Your task to perform on an android device: install app "Adobe Express: Graphic Design" Image 0: 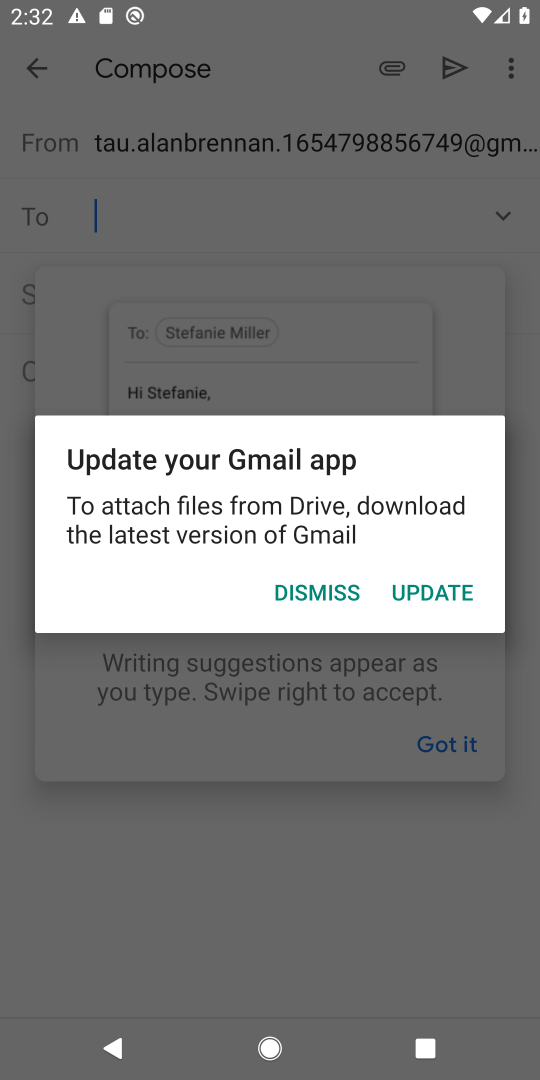
Step 0: press home button
Your task to perform on an android device: install app "Adobe Express: Graphic Design" Image 1: 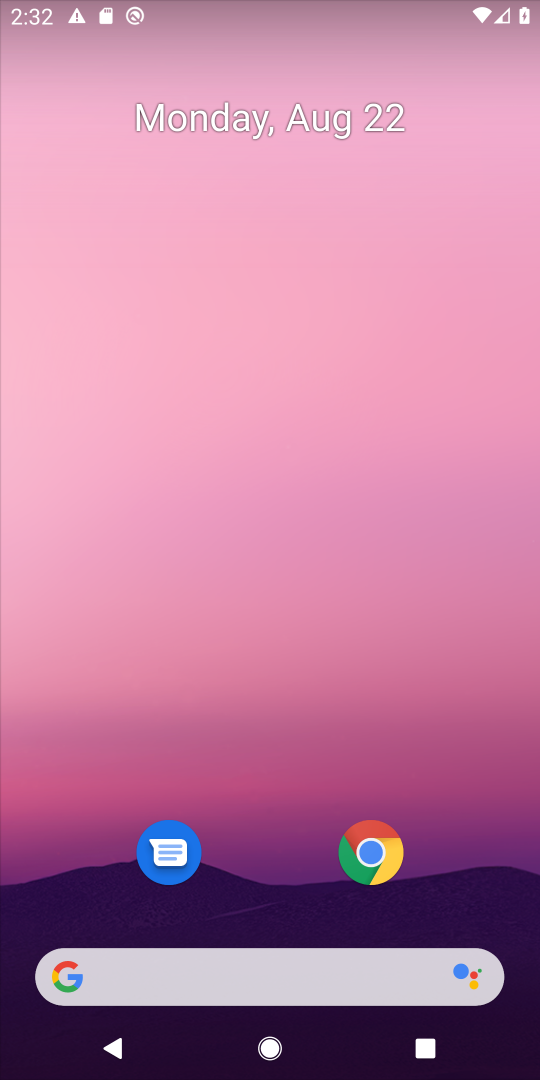
Step 1: drag from (255, 925) to (285, 150)
Your task to perform on an android device: install app "Adobe Express: Graphic Design" Image 2: 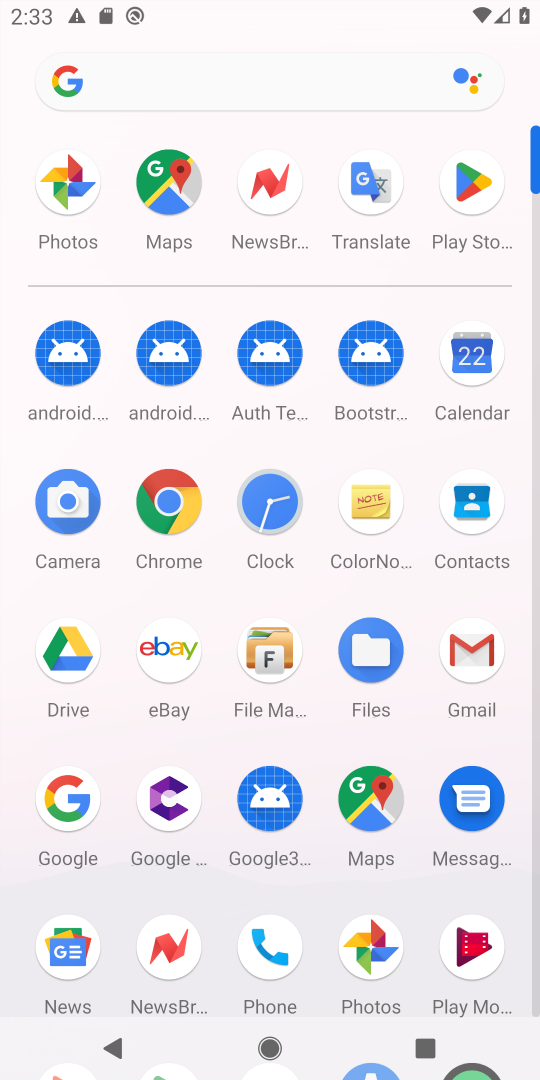
Step 2: click (476, 176)
Your task to perform on an android device: install app "Adobe Express: Graphic Design" Image 3: 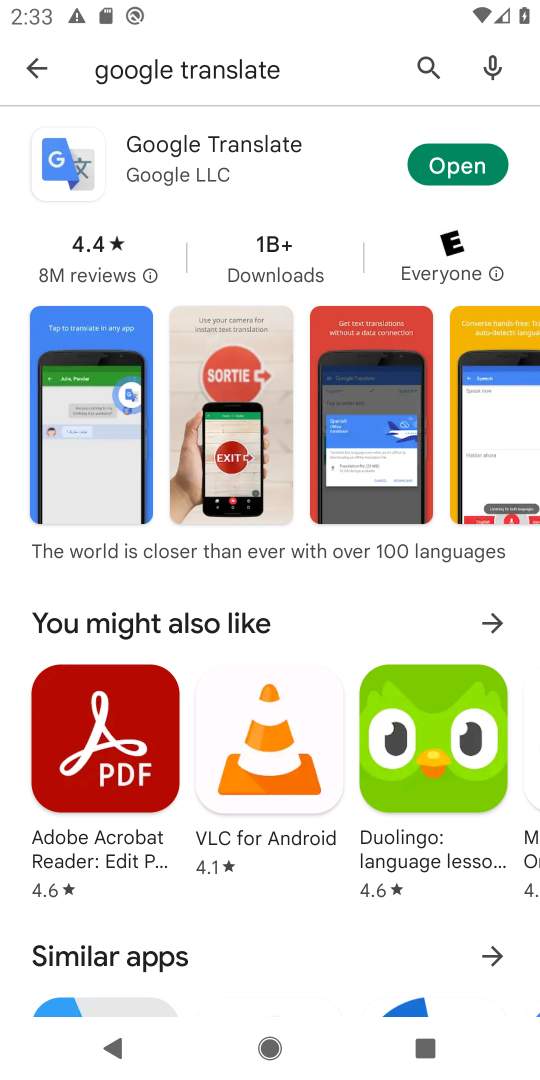
Step 3: click (418, 60)
Your task to perform on an android device: install app "Adobe Express: Graphic Design" Image 4: 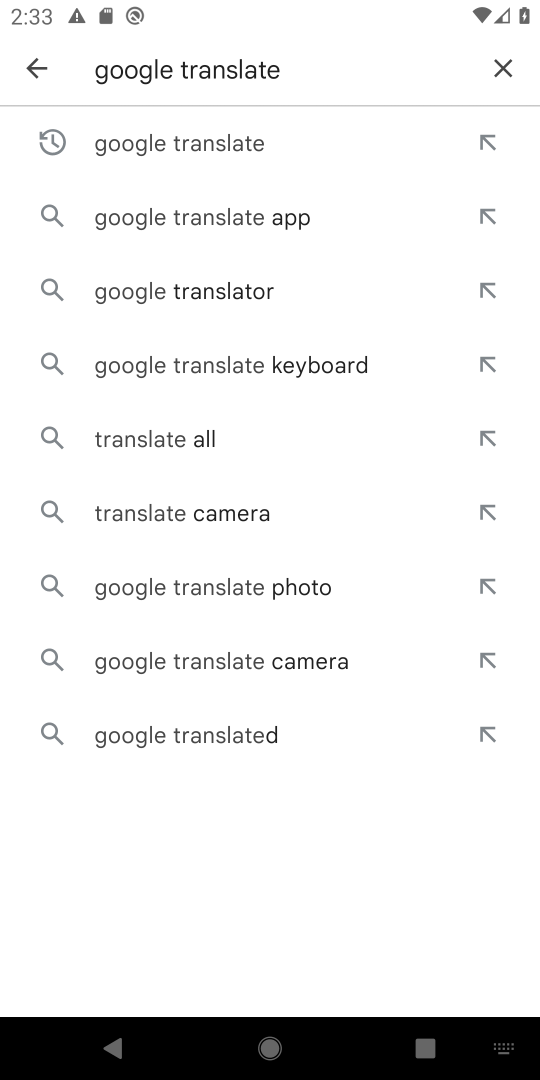
Step 4: click (494, 65)
Your task to perform on an android device: install app "Adobe Express: Graphic Design" Image 5: 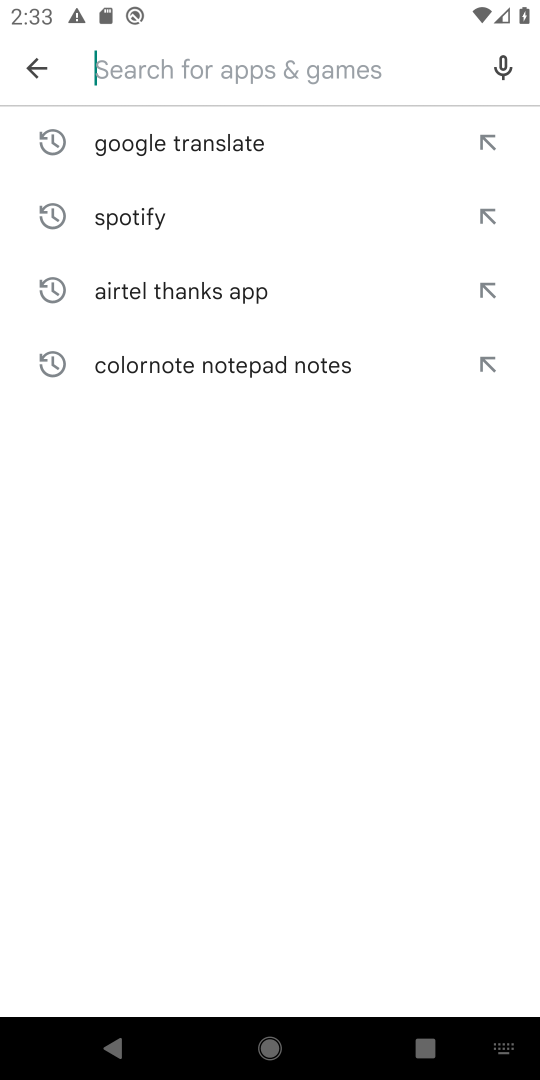
Step 5: type "Adobe Express: Graphic Design"
Your task to perform on an android device: install app "Adobe Express: Graphic Design" Image 6: 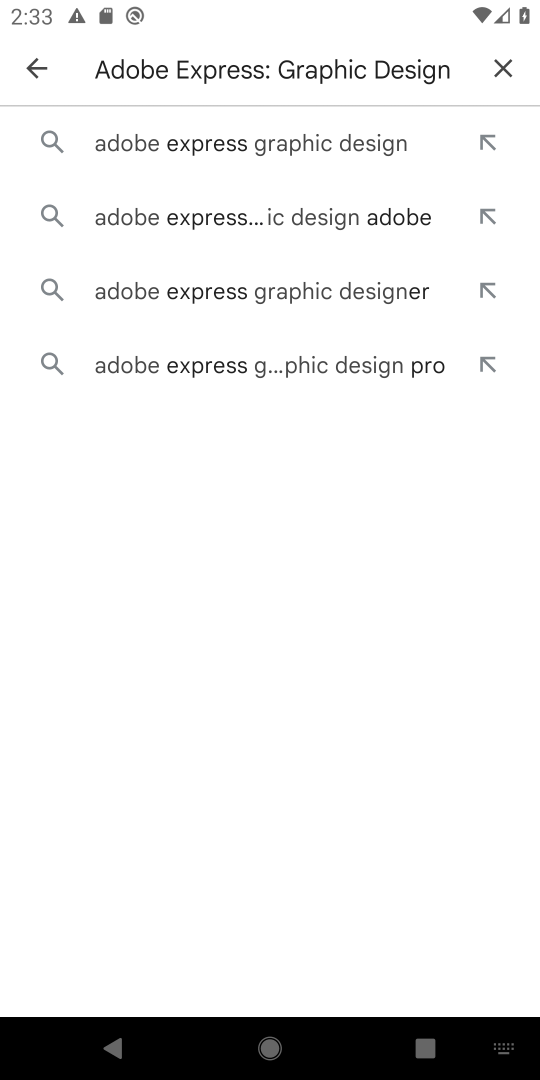
Step 6: click (284, 143)
Your task to perform on an android device: install app "Adobe Express: Graphic Design" Image 7: 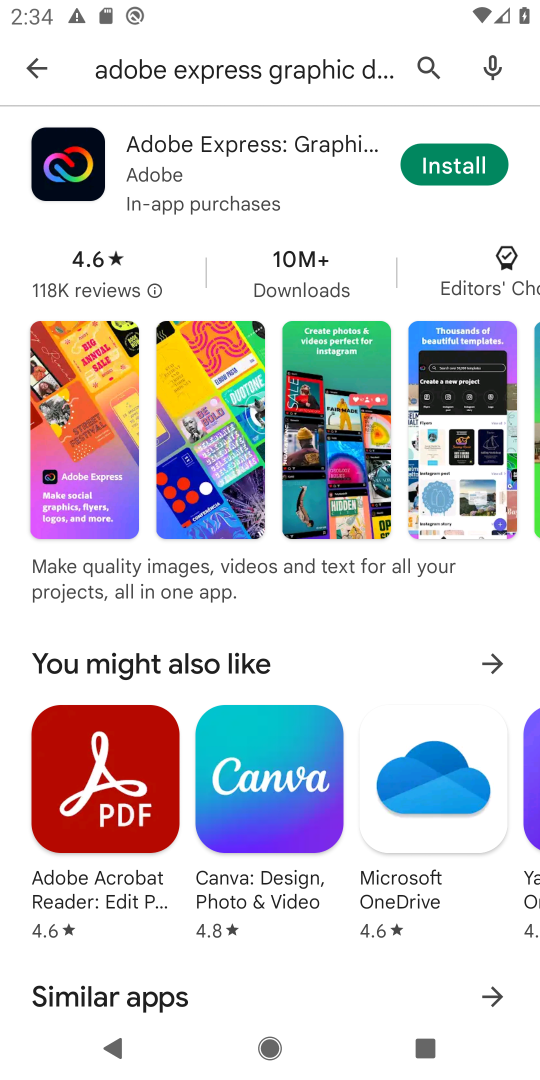
Step 7: click (460, 170)
Your task to perform on an android device: install app "Adobe Express: Graphic Design" Image 8: 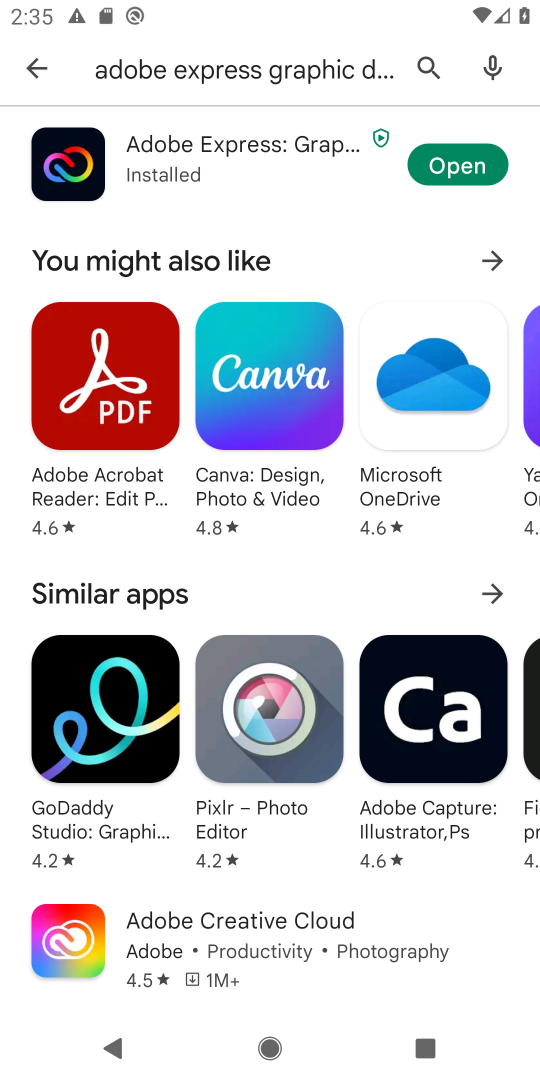
Step 8: click (459, 172)
Your task to perform on an android device: install app "Adobe Express: Graphic Design" Image 9: 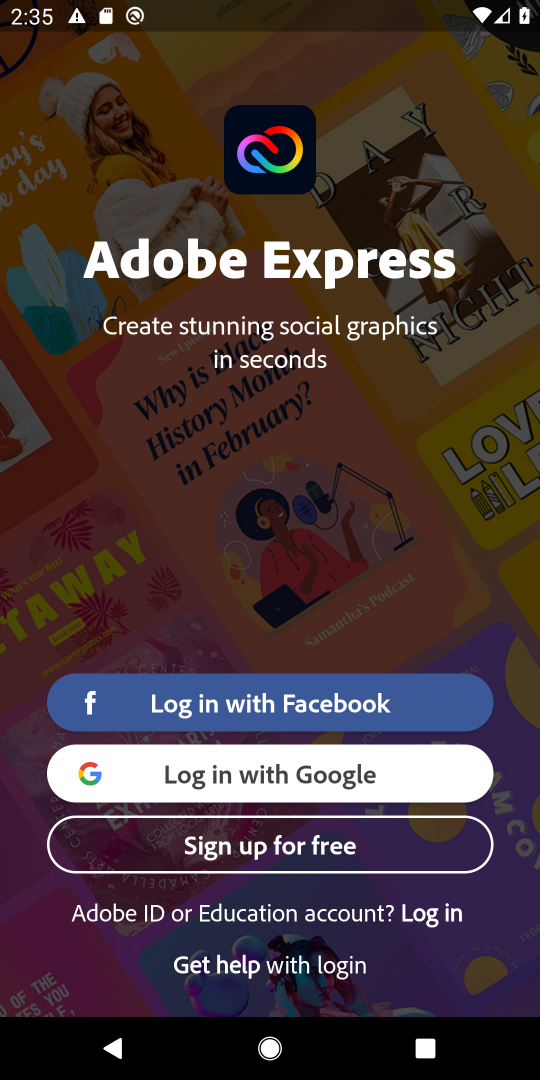
Step 9: task complete